Your task to perform on an android device: toggle show notifications on the lock screen Image 0: 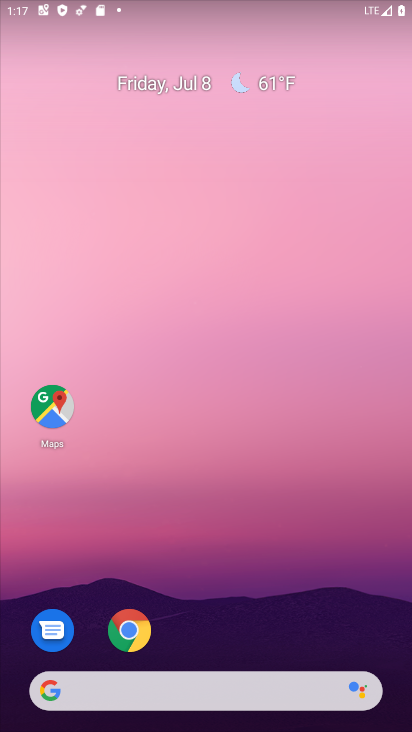
Step 0: drag from (381, 651) to (232, 170)
Your task to perform on an android device: toggle show notifications on the lock screen Image 1: 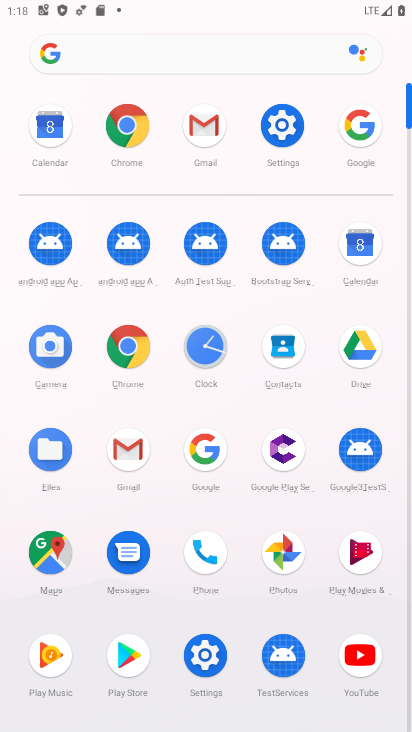
Step 1: click (209, 662)
Your task to perform on an android device: toggle show notifications on the lock screen Image 2: 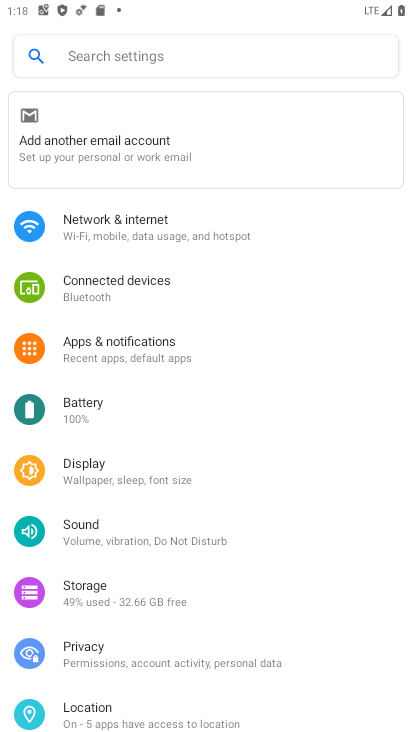
Step 2: click (179, 335)
Your task to perform on an android device: toggle show notifications on the lock screen Image 3: 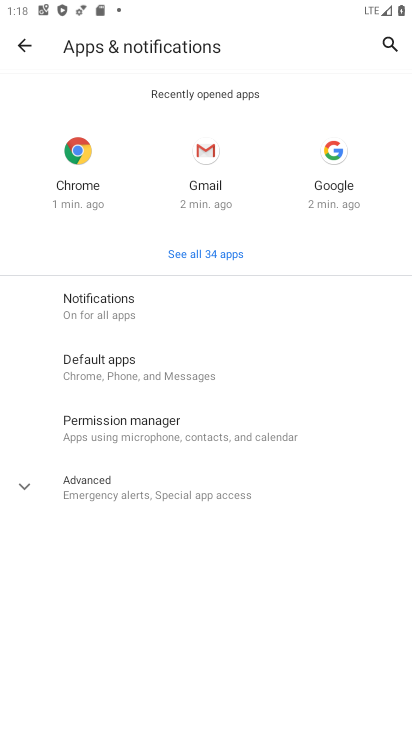
Step 3: click (143, 303)
Your task to perform on an android device: toggle show notifications on the lock screen Image 4: 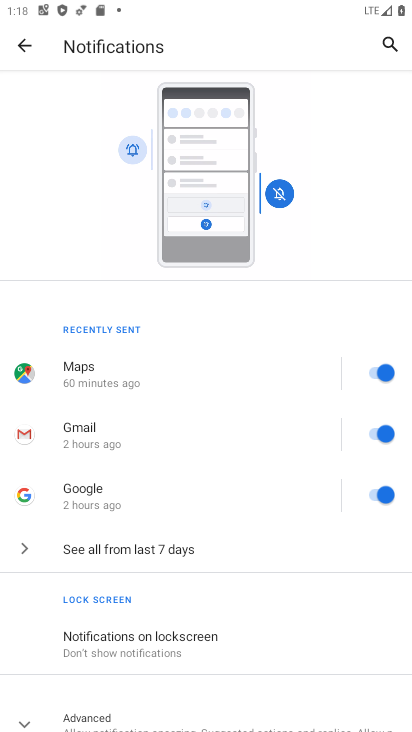
Step 4: click (161, 650)
Your task to perform on an android device: toggle show notifications on the lock screen Image 5: 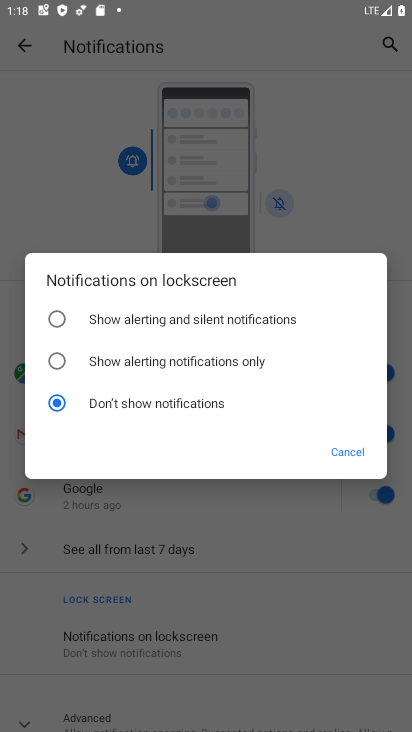
Step 5: click (59, 313)
Your task to perform on an android device: toggle show notifications on the lock screen Image 6: 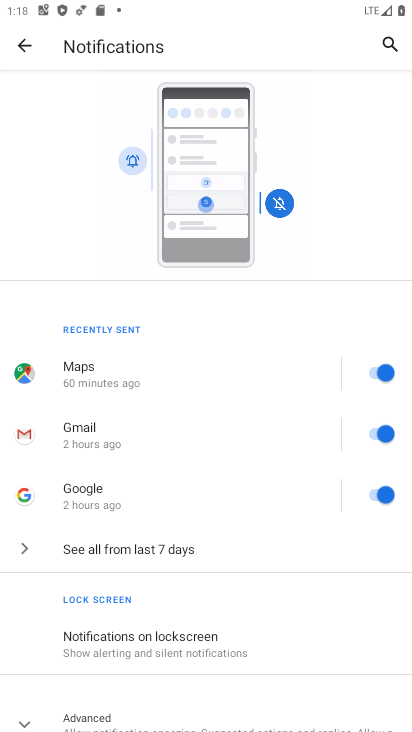
Step 6: task complete